Your task to perform on an android device: turn on sleep mode Image 0: 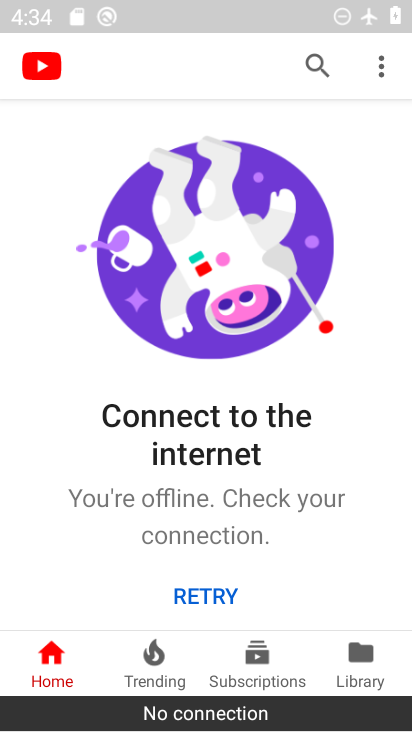
Step 0: press home button
Your task to perform on an android device: turn on sleep mode Image 1: 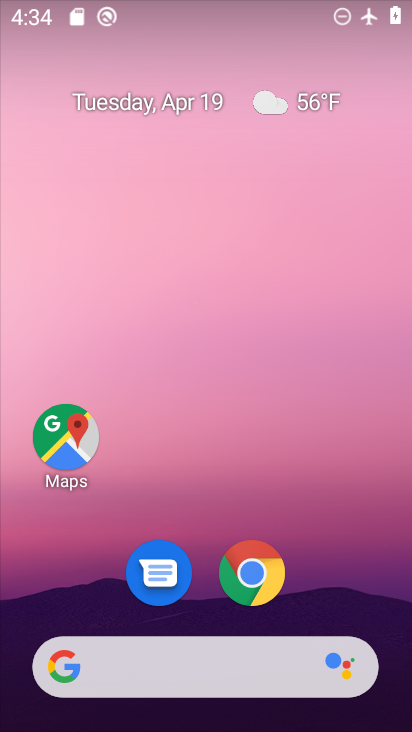
Step 1: drag from (361, 576) to (369, 87)
Your task to perform on an android device: turn on sleep mode Image 2: 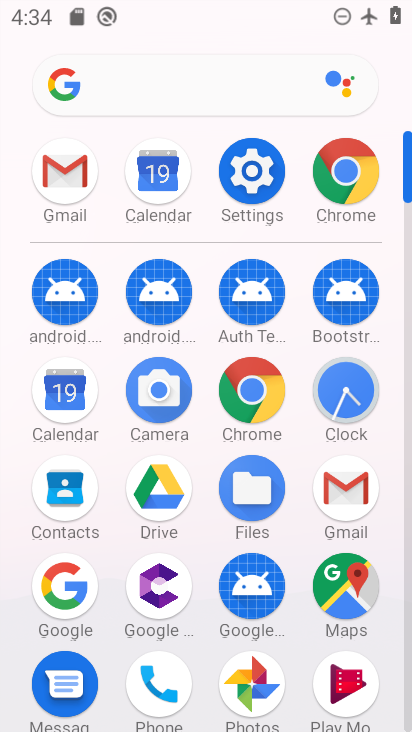
Step 2: click (247, 175)
Your task to perform on an android device: turn on sleep mode Image 3: 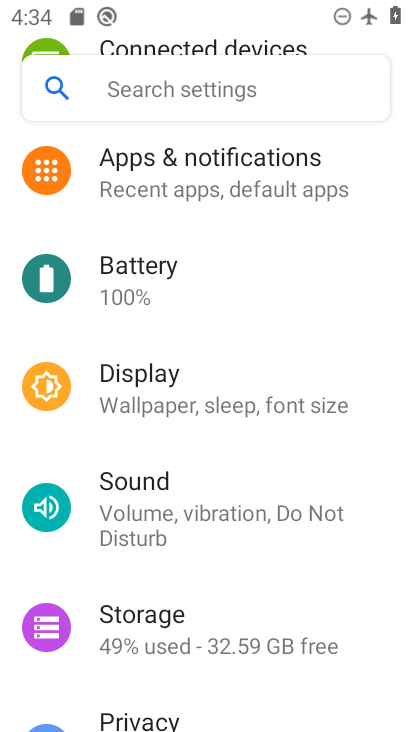
Step 3: click (166, 413)
Your task to perform on an android device: turn on sleep mode Image 4: 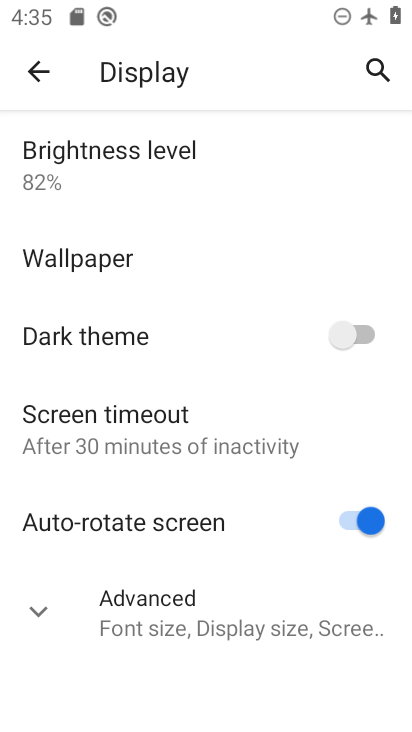
Step 4: click (33, 624)
Your task to perform on an android device: turn on sleep mode Image 5: 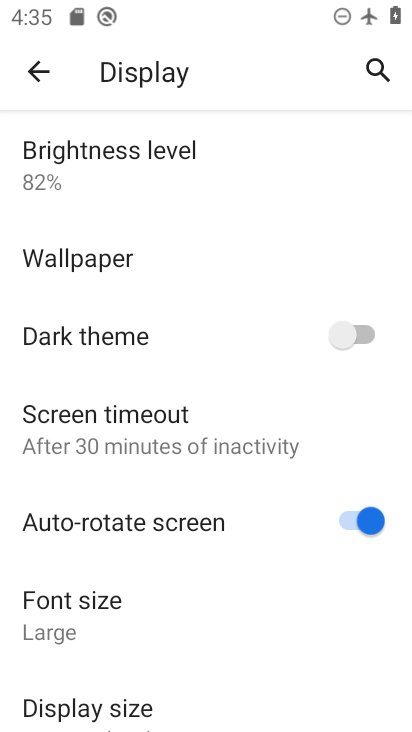
Step 5: task complete